Your task to perform on an android device: Go to eBay Image 0: 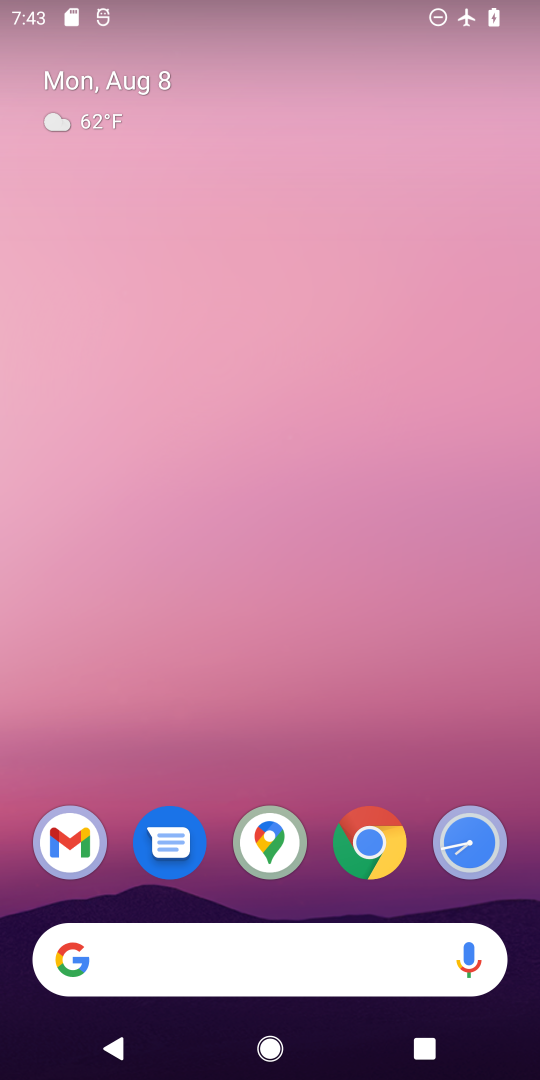
Step 0: click (364, 863)
Your task to perform on an android device: Go to eBay Image 1: 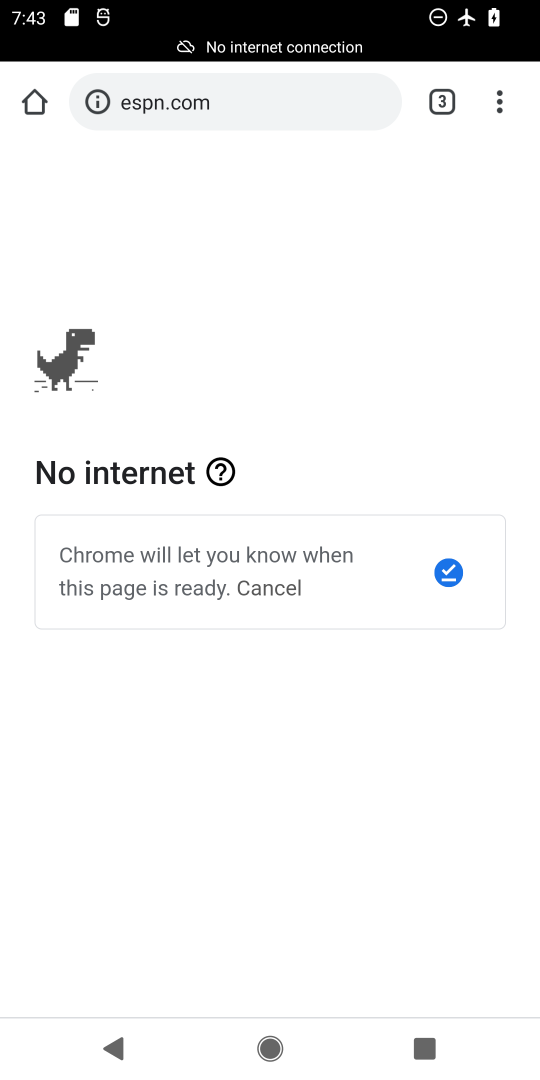
Step 1: task complete